Your task to perform on an android device: Open accessibility settings Image 0: 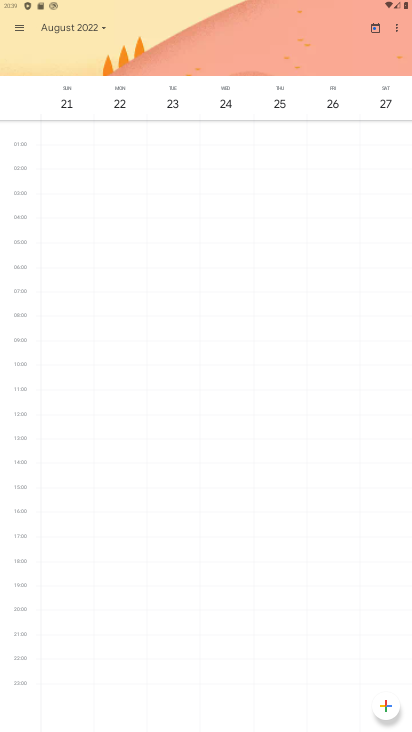
Step 0: press home button
Your task to perform on an android device: Open accessibility settings Image 1: 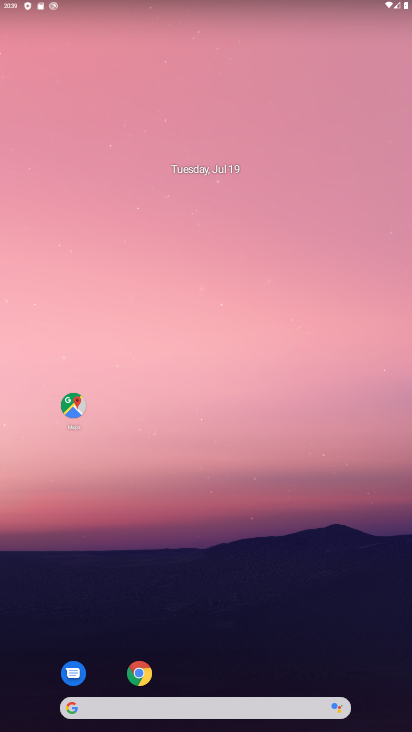
Step 1: drag from (189, 319) to (163, 0)
Your task to perform on an android device: Open accessibility settings Image 2: 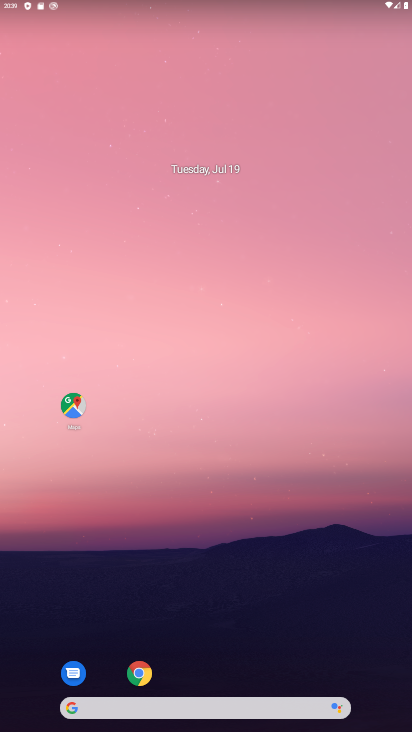
Step 2: drag from (257, 707) to (259, 1)
Your task to perform on an android device: Open accessibility settings Image 3: 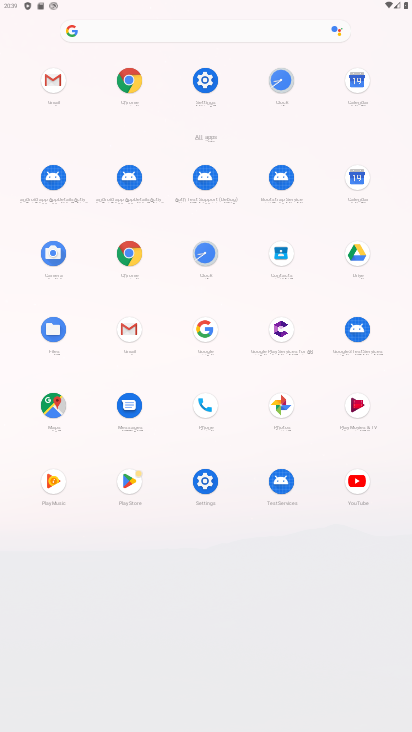
Step 3: click (215, 488)
Your task to perform on an android device: Open accessibility settings Image 4: 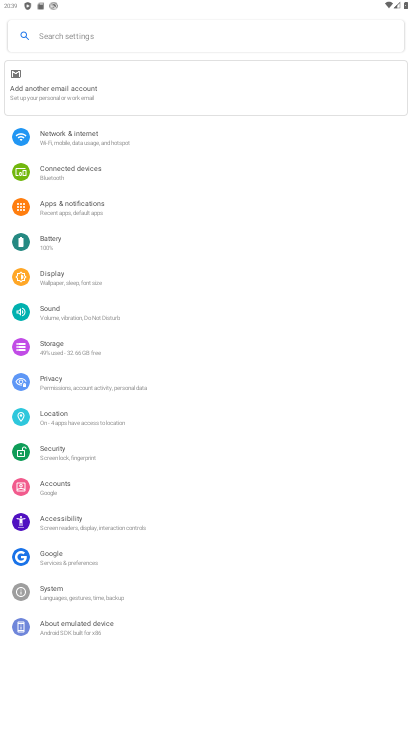
Step 4: click (94, 526)
Your task to perform on an android device: Open accessibility settings Image 5: 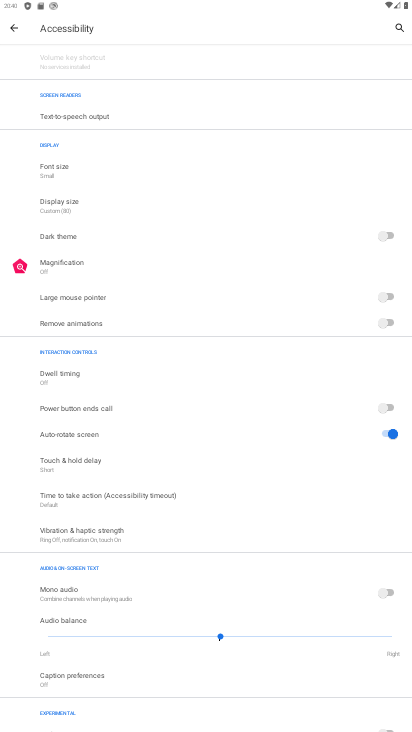
Step 5: task complete